Your task to perform on an android device: search for starred emails in the gmail app Image 0: 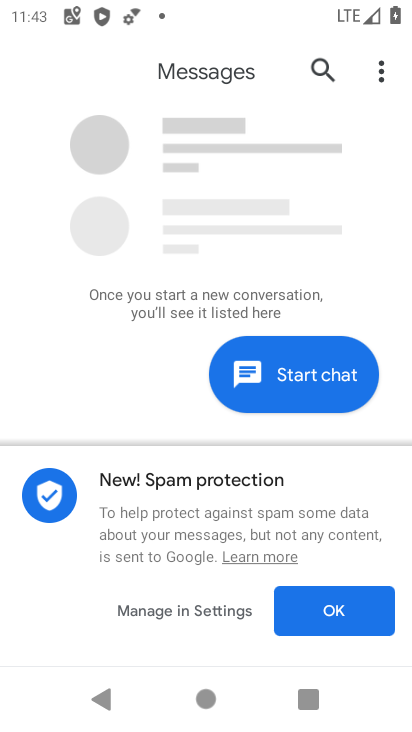
Step 0: press home button
Your task to perform on an android device: search for starred emails in the gmail app Image 1: 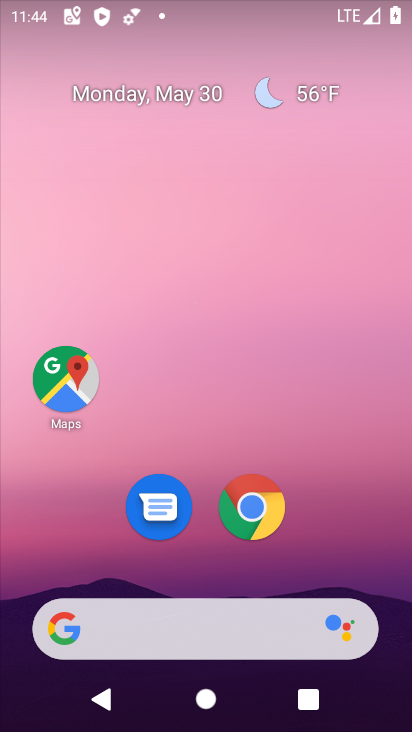
Step 1: drag from (362, 576) to (377, 119)
Your task to perform on an android device: search for starred emails in the gmail app Image 2: 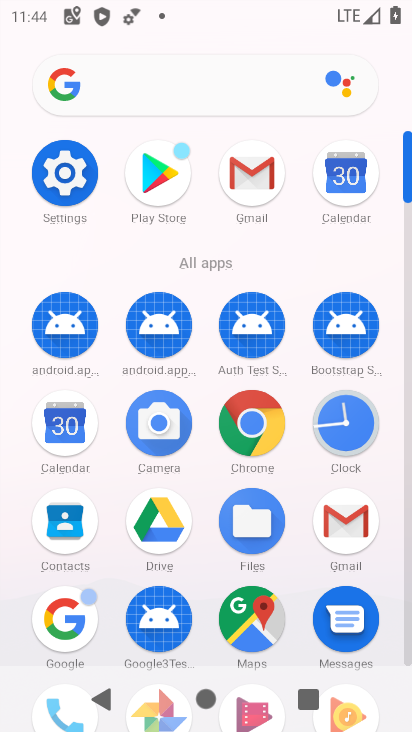
Step 2: click (255, 183)
Your task to perform on an android device: search for starred emails in the gmail app Image 3: 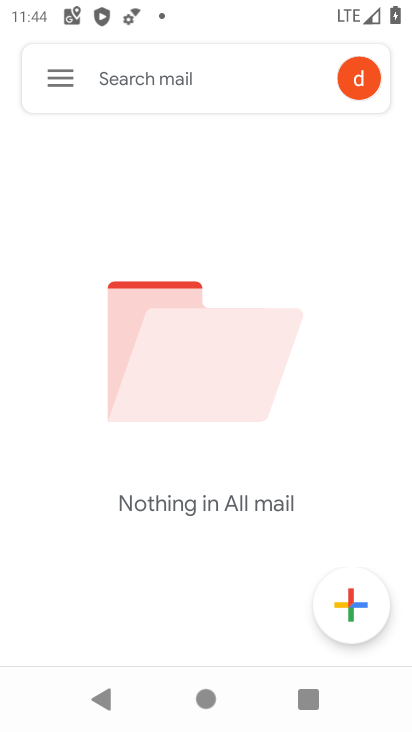
Step 3: click (45, 87)
Your task to perform on an android device: search for starred emails in the gmail app Image 4: 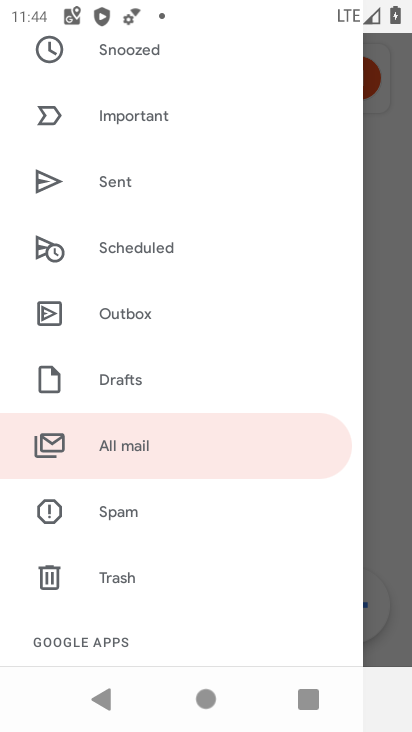
Step 4: drag from (254, 68) to (246, 263)
Your task to perform on an android device: search for starred emails in the gmail app Image 5: 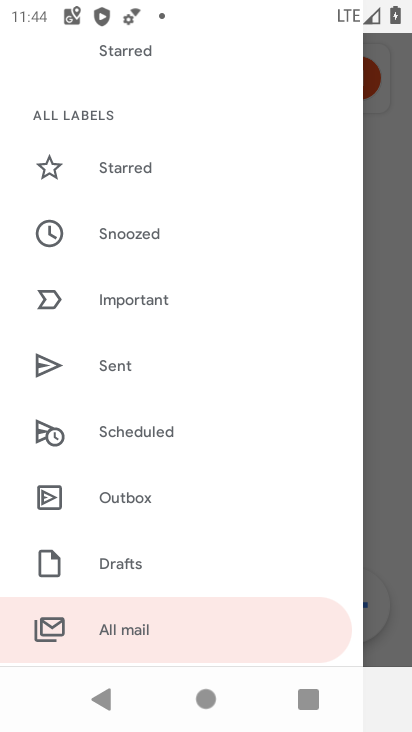
Step 5: click (178, 162)
Your task to perform on an android device: search for starred emails in the gmail app Image 6: 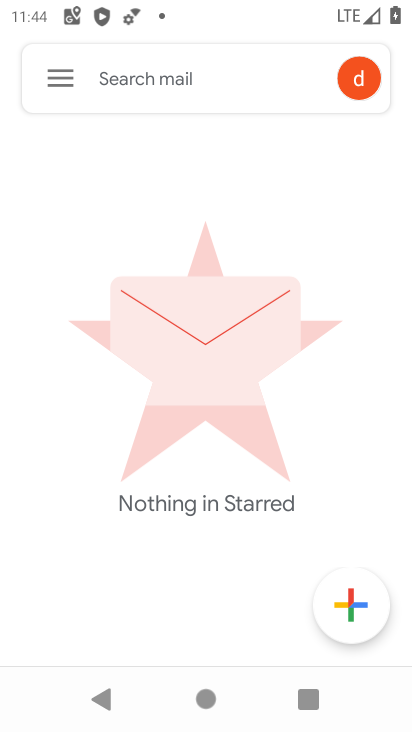
Step 6: task complete